Your task to perform on an android device: Open Youtube and go to "Your channel" Image 0: 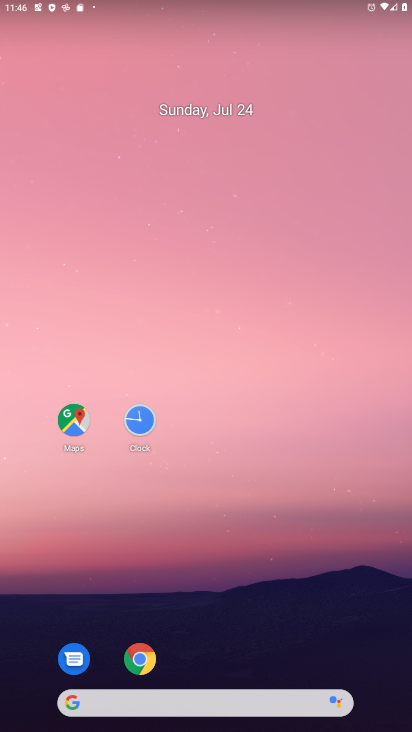
Step 0: drag from (397, 657) to (358, 219)
Your task to perform on an android device: Open Youtube and go to "Your channel" Image 1: 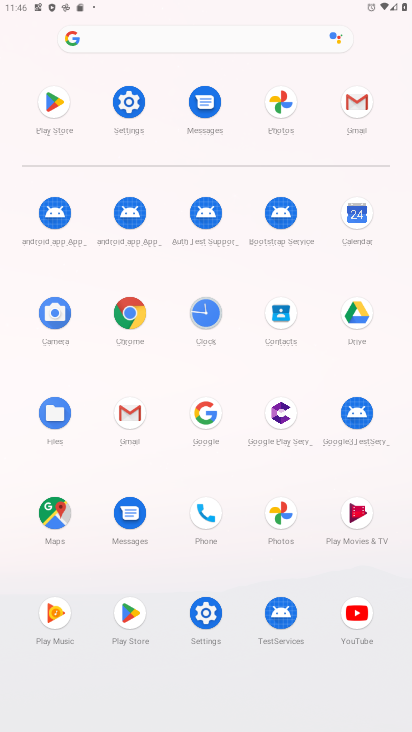
Step 1: click (357, 609)
Your task to perform on an android device: Open Youtube and go to "Your channel" Image 2: 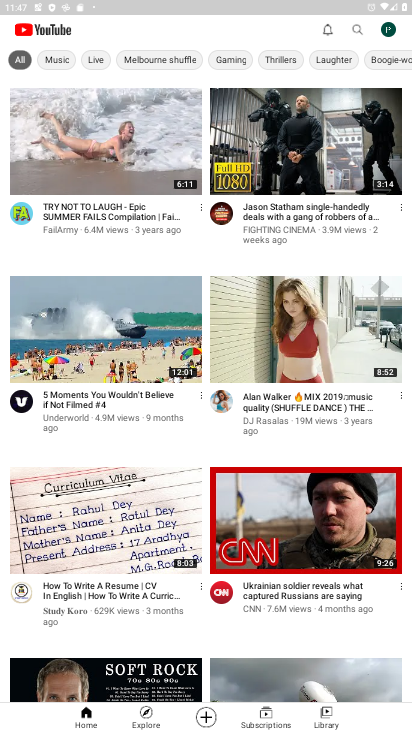
Step 2: click (394, 29)
Your task to perform on an android device: Open Youtube and go to "Your channel" Image 3: 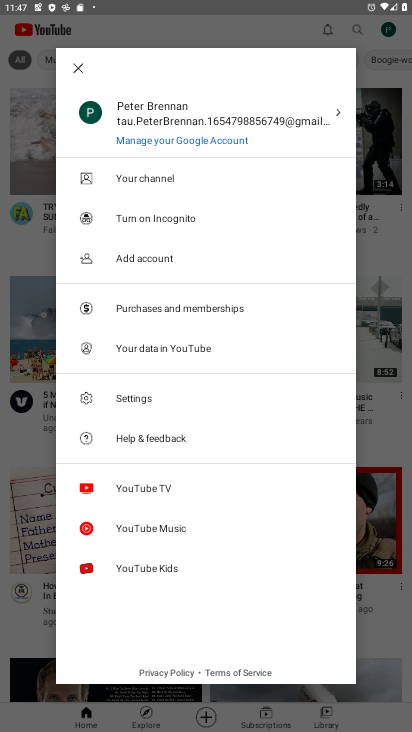
Step 3: click (145, 179)
Your task to perform on an android device: Open Youtube and go to "Your channel" Image 4: 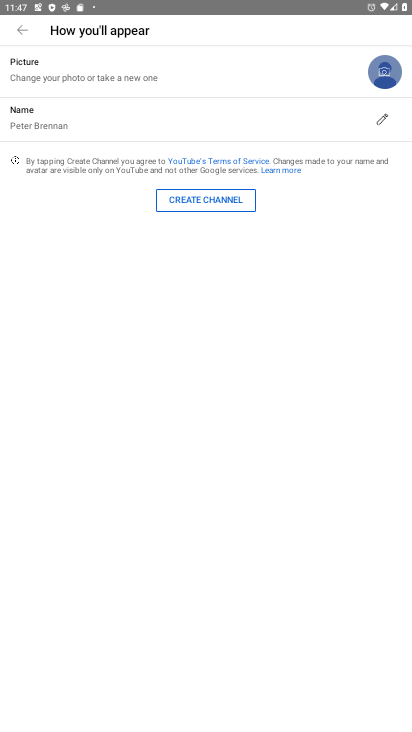
Step 4: task complete